Your task to perform on an android device: Go to CNN.com Image 0: 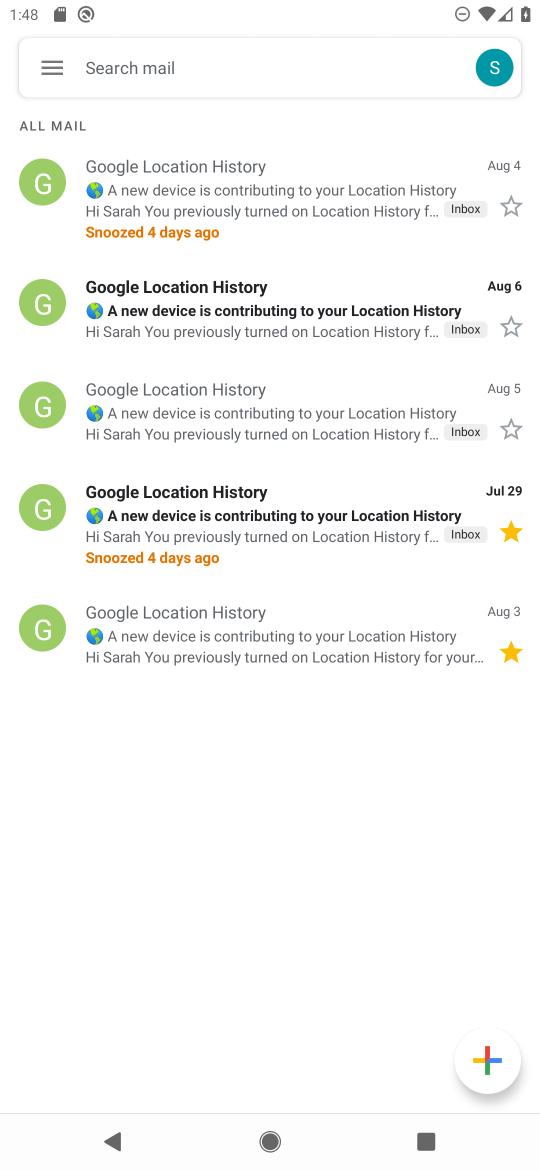
Step 0: press home button
Your task to perform on an android device: Go to CNN.com Image 1: 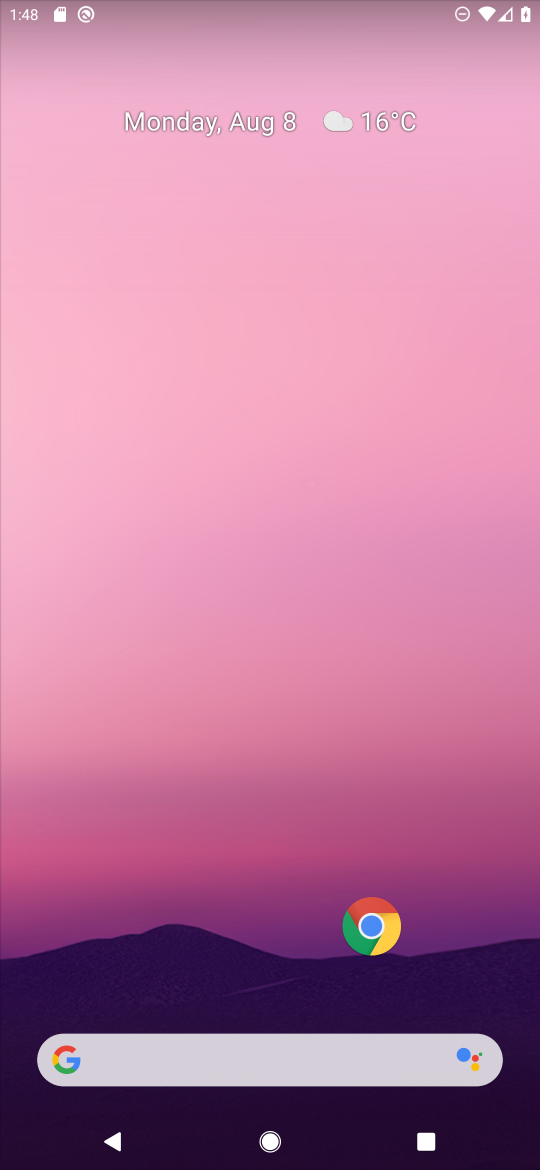
Step 1: drag from (263, 961) to (287, 229)
Your task to perform on an android device: Go to CNN.com Image 2: 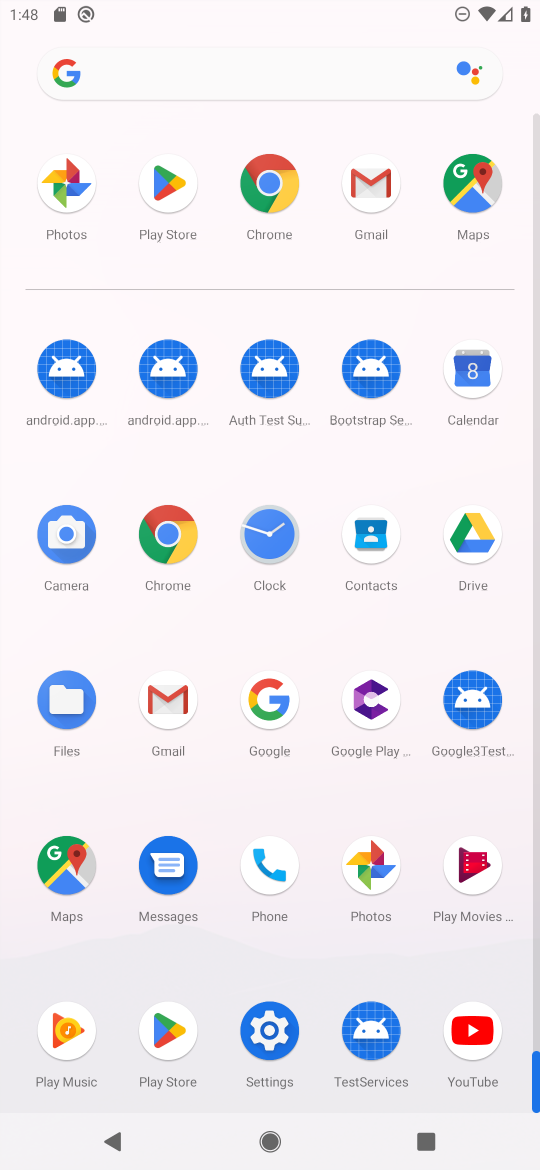
Step 2: click (255, 169)
Your task to perform on an android device: Go to CNN.com Image 3: 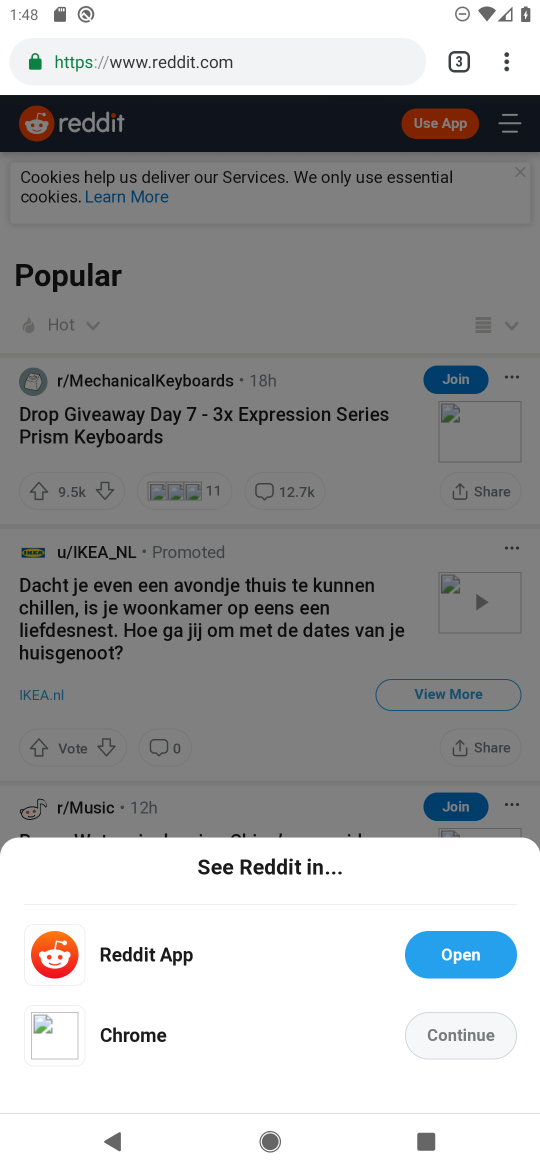
Step 3: click (514, 64)
Your task to perform on an android device: Go to CNN.com Image 4: 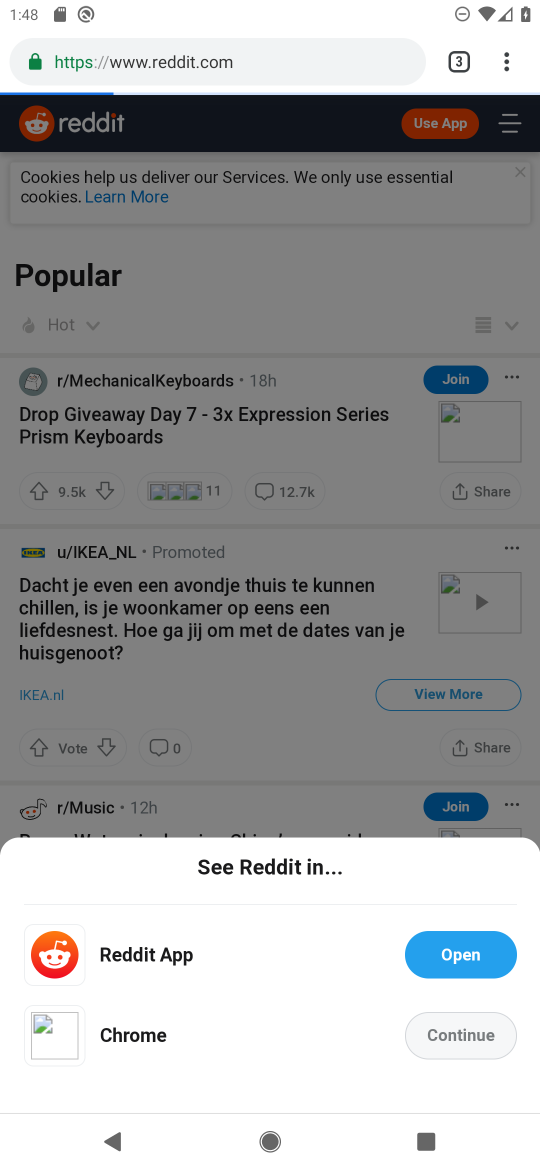
Step 4: click (517, 60)
Your task to perform on an android device: Go to CNN.com Image 5: 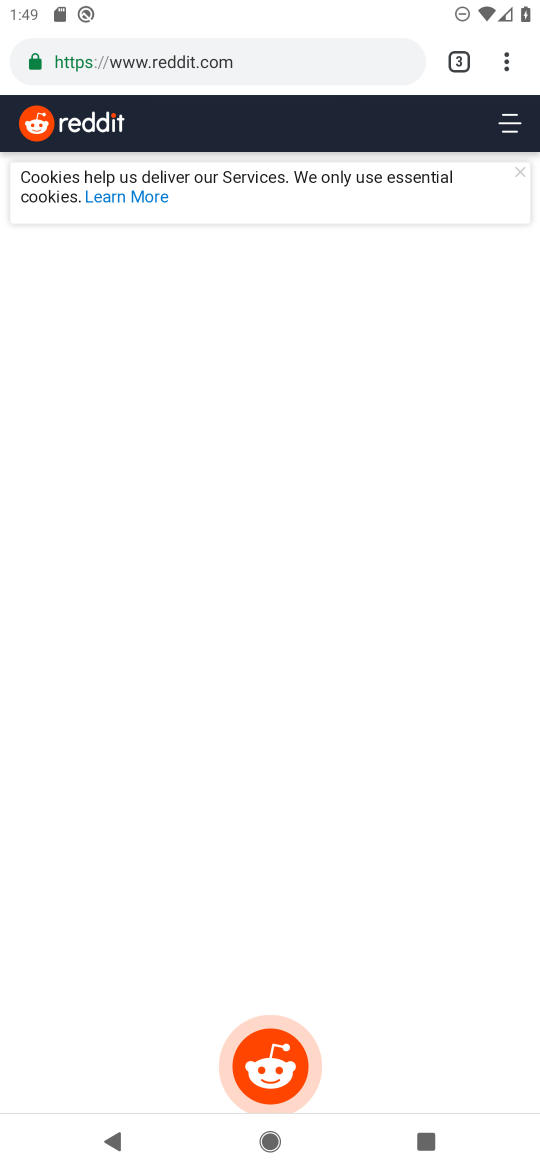
Step 5: click (517, 60)
Your task to perform on an android device: Go to CNN.com Image 6: 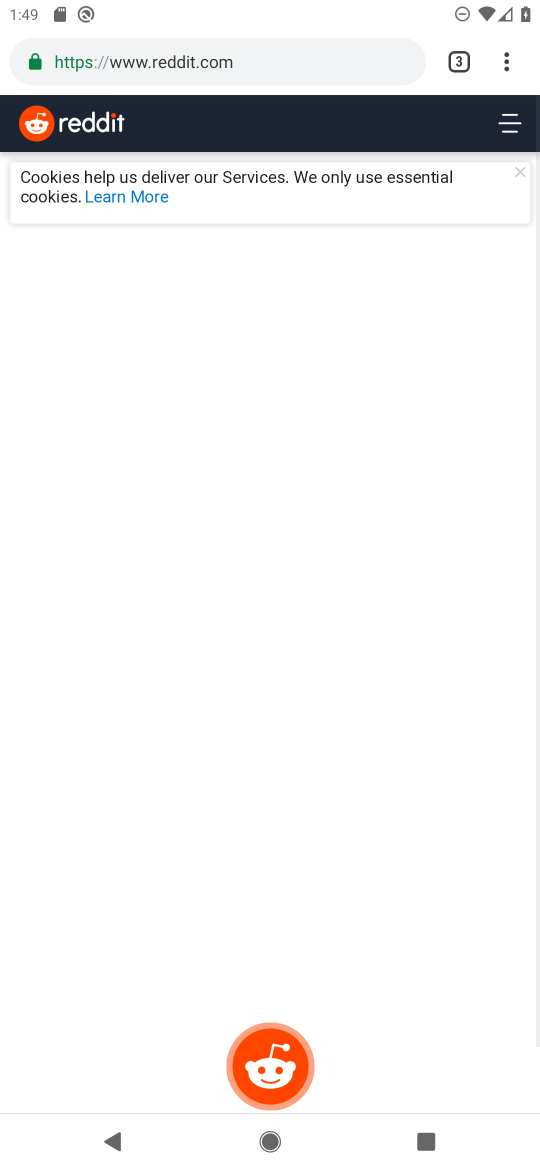
Step 6: click (503, 60)
Your task to perform on an android device: Go to CNN.com Image 7: 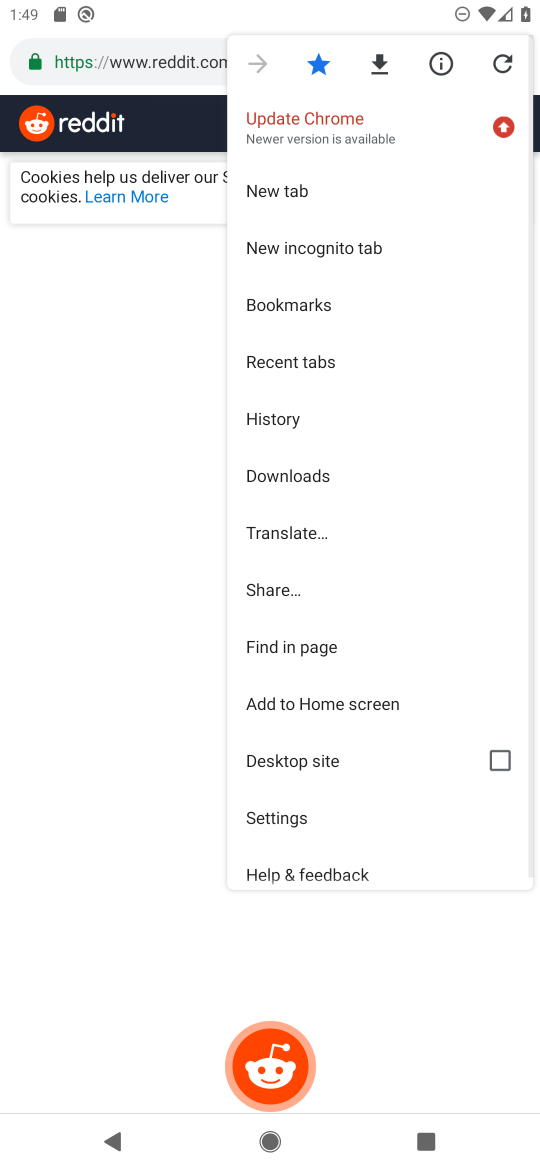
Step 7: click (283, 183)
Your task to perform on an android device: Go to CNN.com Image 8: 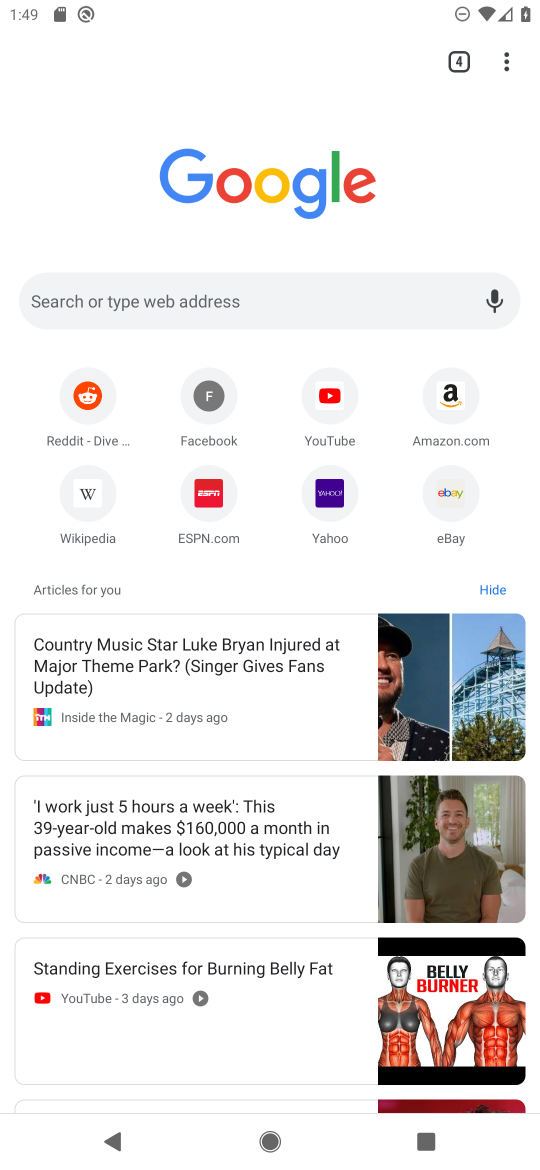
Step 8: click (183, 304)
Your task to perform on an android device: Go to CNN.com Image 9: 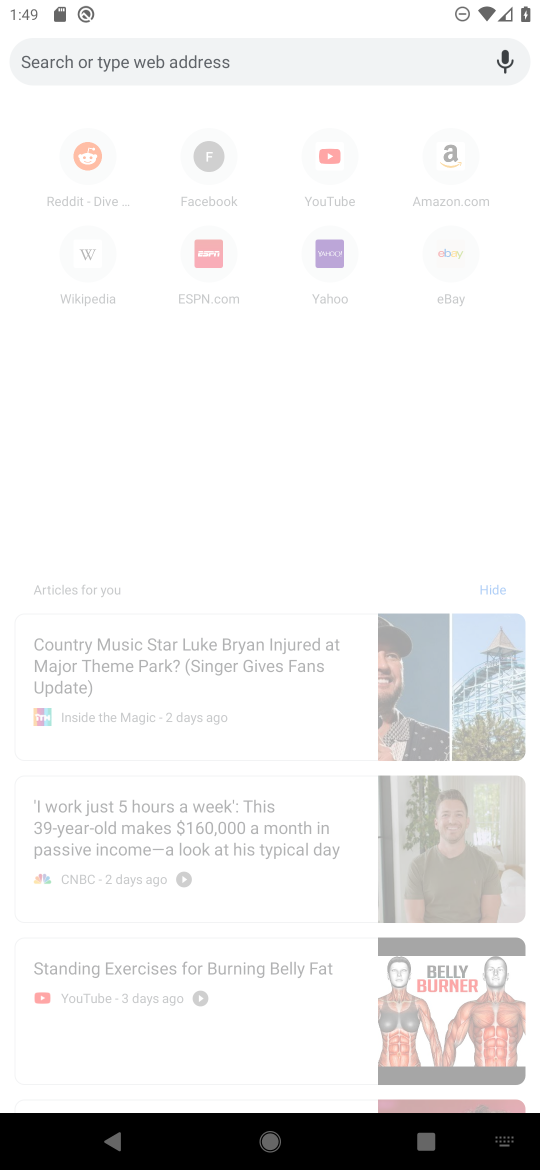
Step 9: type "CNN.com "
Your task to perform on an android device: Go to CNN.com Image 10: 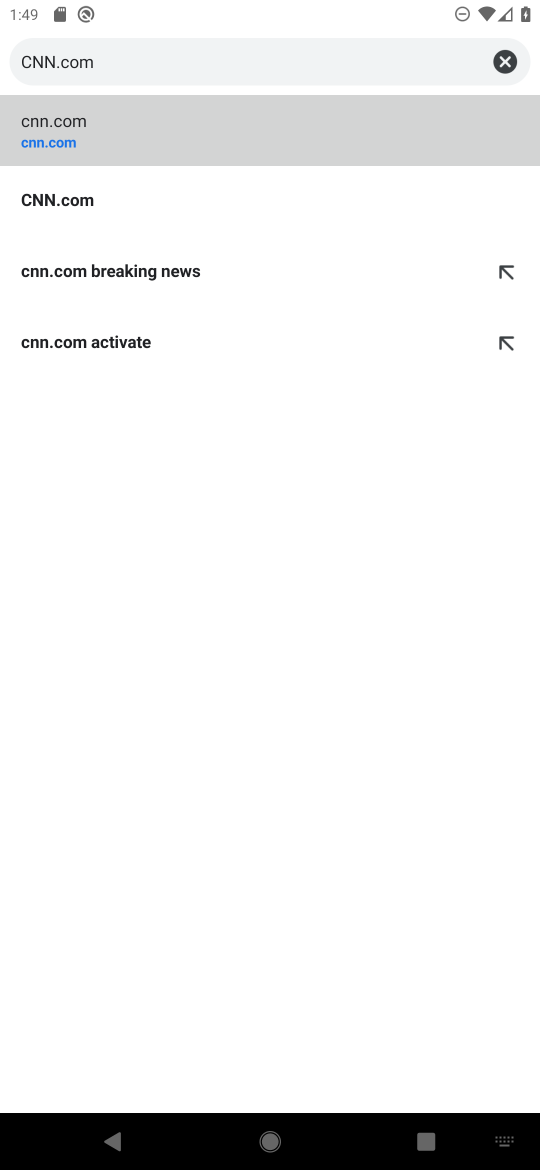
Step 10: click (256, 136)
Your task to perform on an android device: Go to CNN.com Image 11: 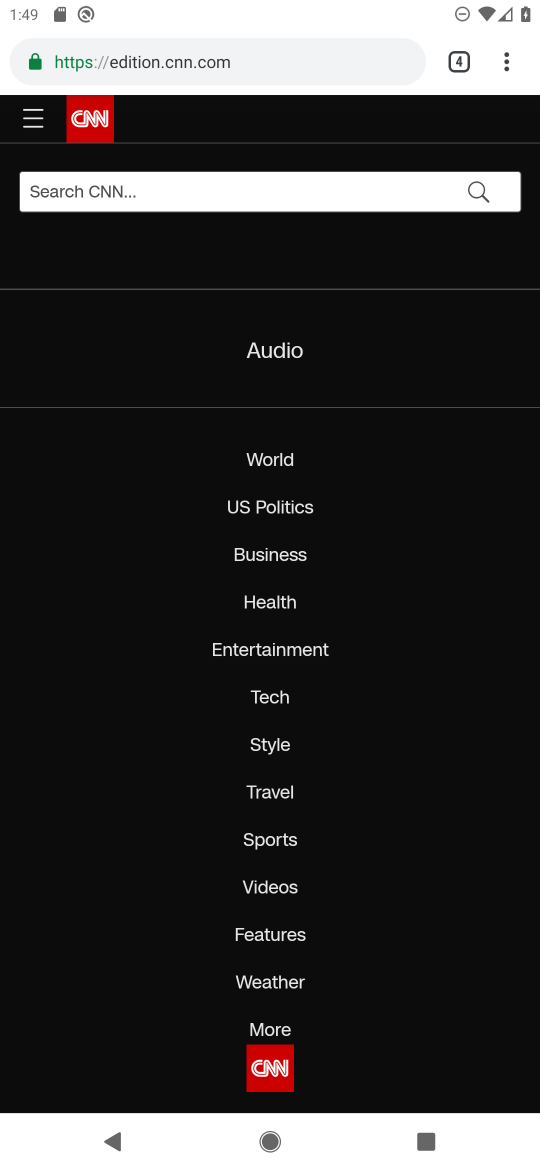
Step 11: task complete